Your task to perform on an android device: turn off data saver in the chrome app Image 0: 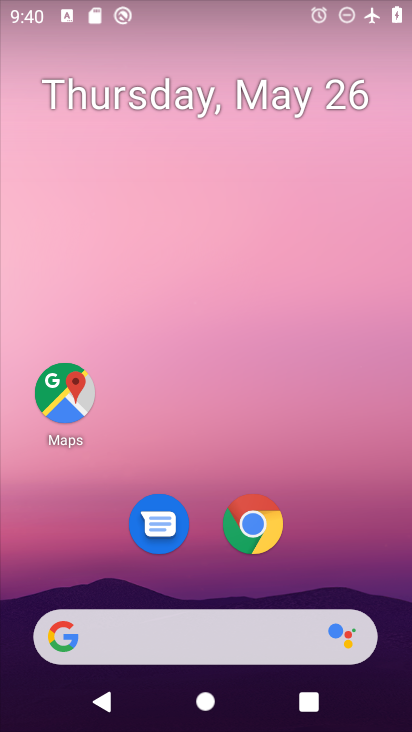
Step 0: click (266, 521)
Your task to perform on an android device: turn off data saver in the chrome app Image 1: 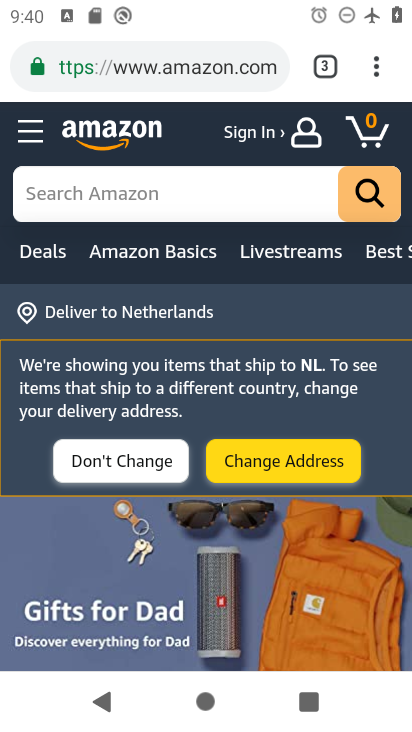
Step 1: click (373, 67)
Your task to perform on an android device: turn off data saver in the chrome app Image 2: 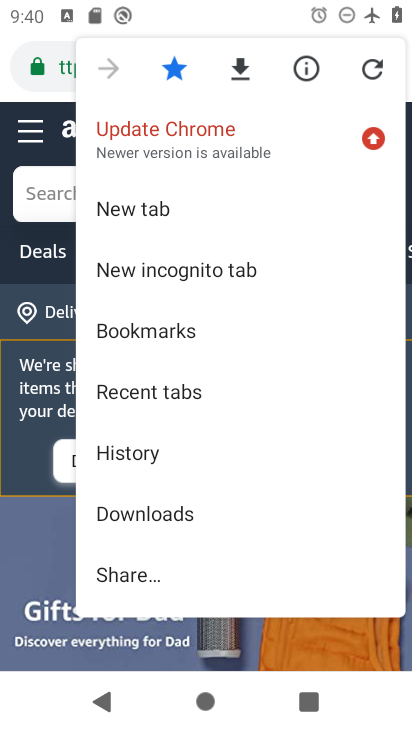
Step 2: drag from (265, 458) to (283, 150)
Your task to perform on an android device: turn off data saver in the chrome app Image 3: 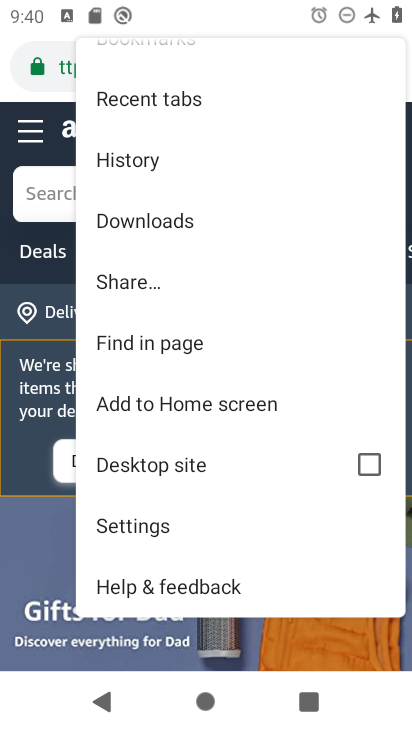
Step 3: click (173, 521)
Your task to perform on an android device: turn off data saver in the chrome app Image 4: 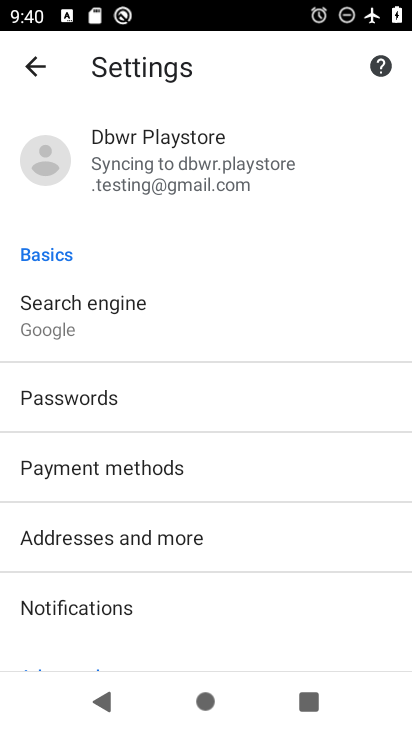
Step 4: drag from (209, 586) to (228, 181)
Your task to perform on an android device: turn off data saver in the chrome app Image 5: 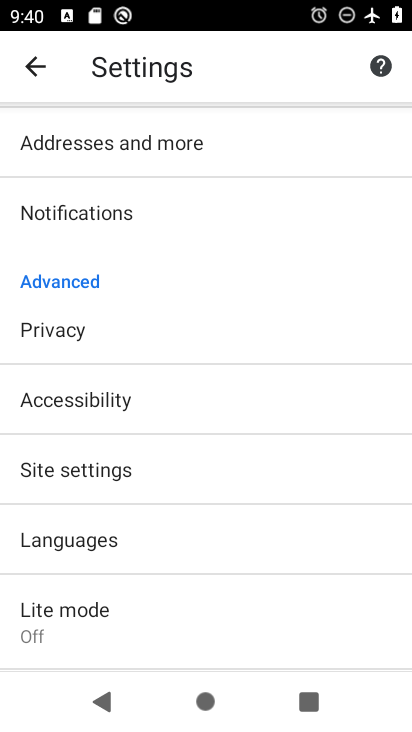
Step 5: click (138, 633)
Your task to perform on an android device: turn off data saver in the chrome app Image 6: 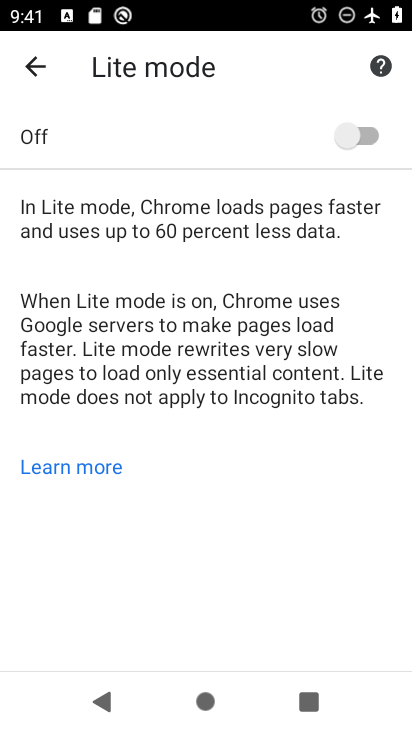
Step 6: task complete